Your task to perform on an android device: delete location history Image 0: 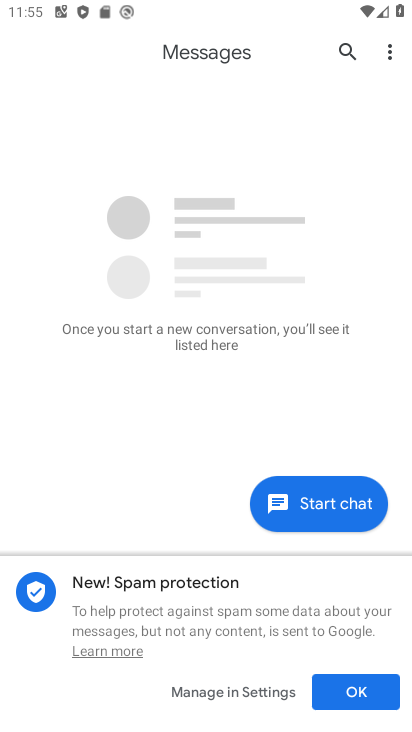
Step 0: press home button
Your task to perform on an android device: delete location history Image 1: 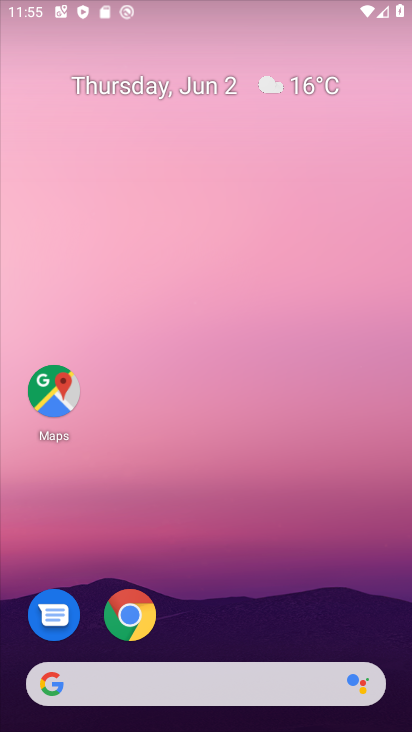
Step 1: drag from (213, 580) to (248, 284)
Your task to perform on an android device: delete location history Image 2: 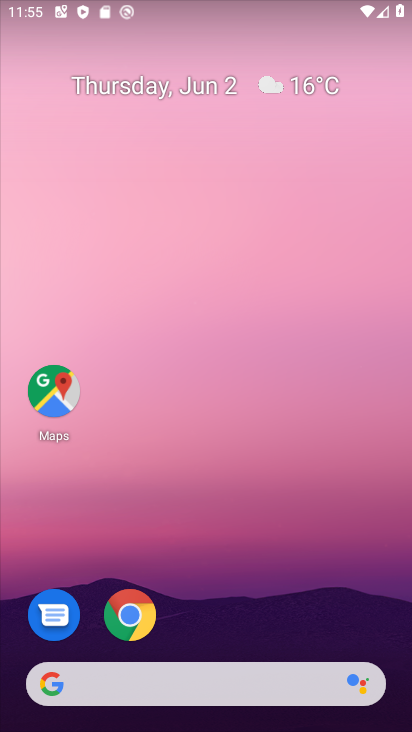
Step 2: click (261, 551)
Your task to perform on an android device: delete location history Image 3: 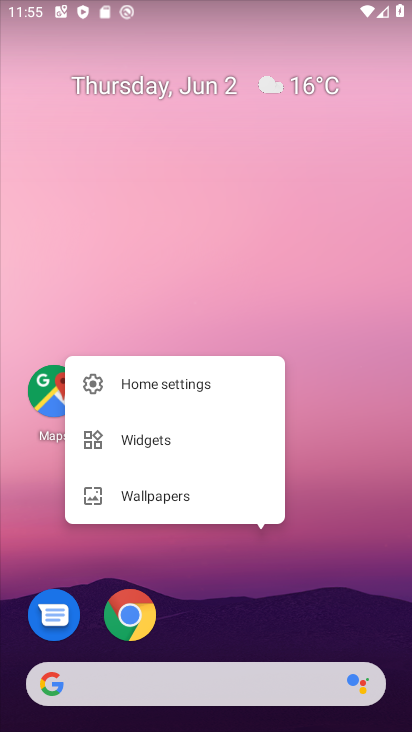
Step 3: drag from (228, 662) to (250, 238)
Your task to perform on an android device: delete location history Image 4: 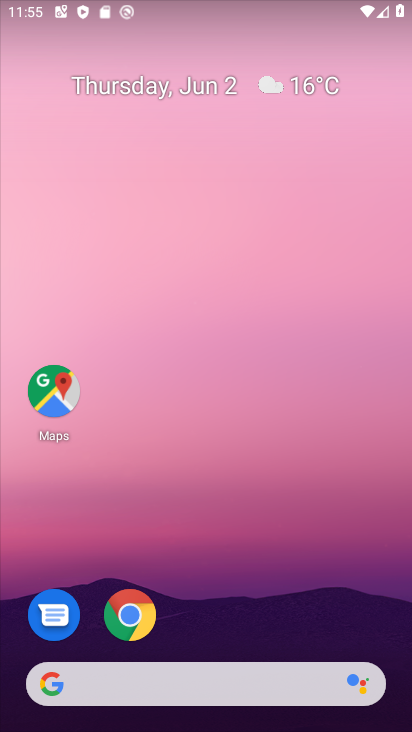
Step 4: drag from (204, 636) to (238, 264)
Your task to perform on an android device: delete location history Image 5: 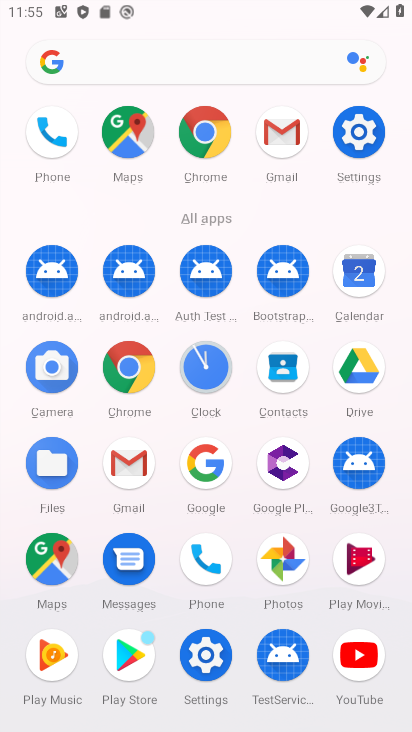
Step 5: click (365, 130)
Your task to perform on an android device: delete location history Image 6: 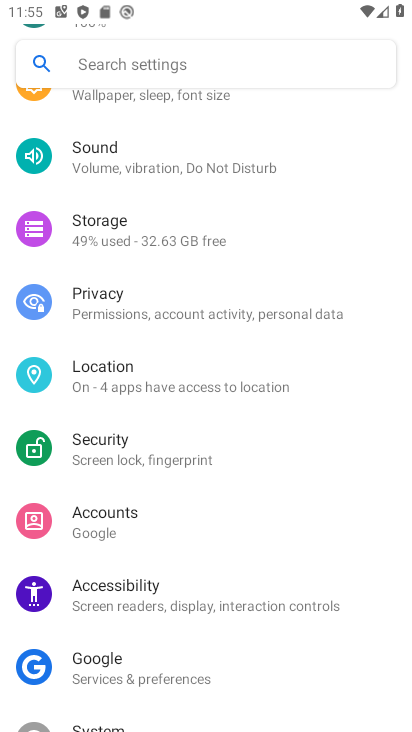
Step 6: press home button
Your task to perform on an android device: delete location history Image 7: 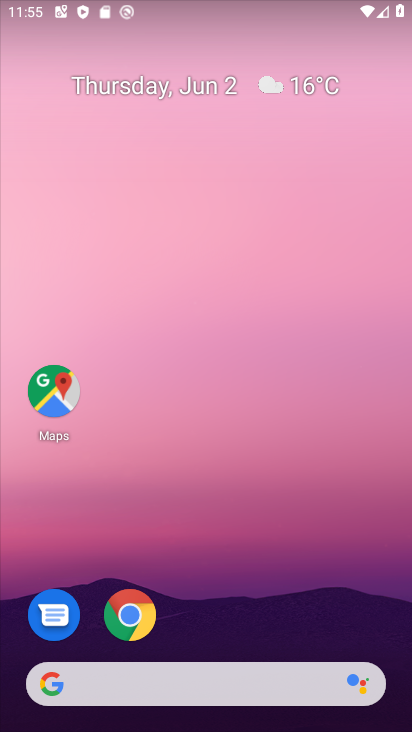
Step 7: drag from (165, 587) to (150, 258)
Your task to perform on an android device: delete location history Image 8: 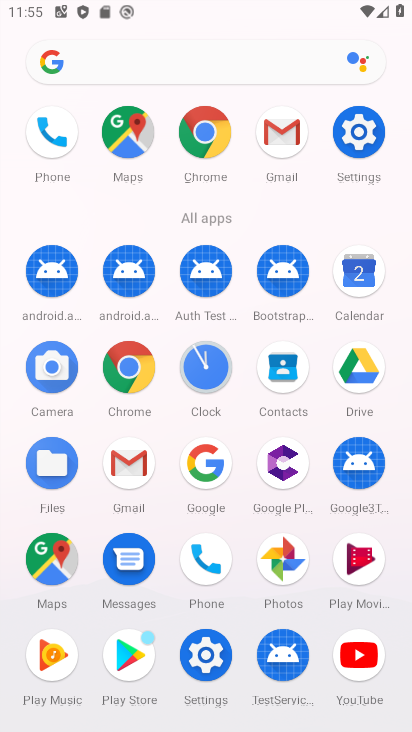
Step 8: click (56, 560)
Your task to perform on an android device: delete location history Image 9: 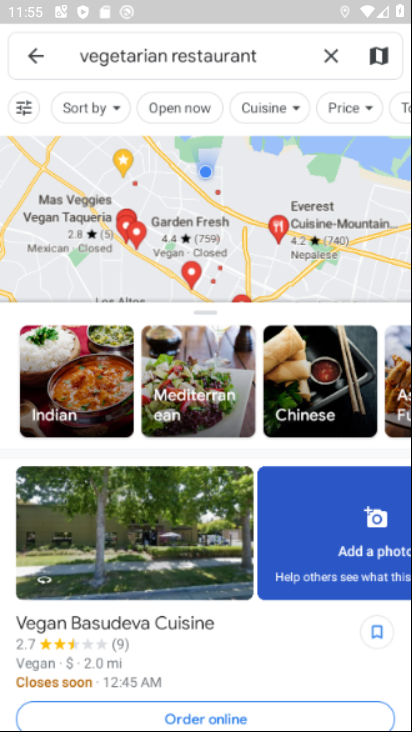
Step 9: click (40, 52)
Your task to perform on an android device: delete location history Image 10: 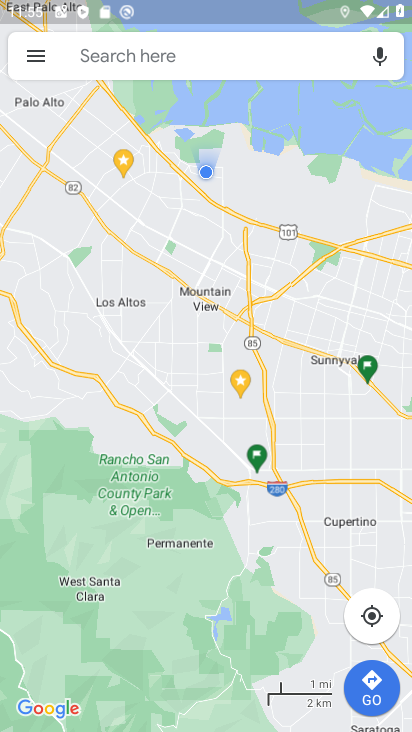
Step 10: click (28, 58)
Your task to perform on an android device: delete location history Image 11: 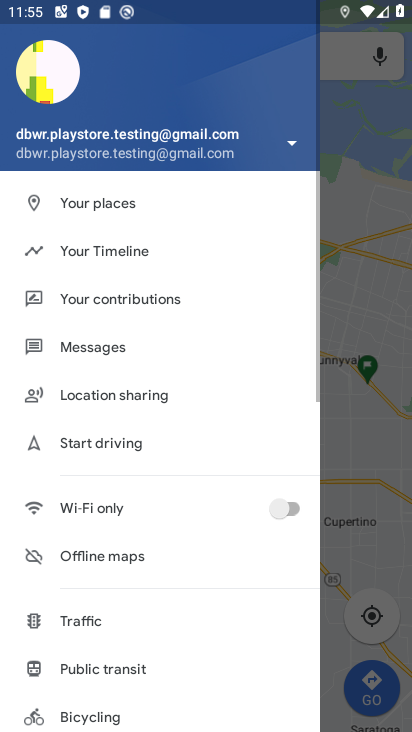
Step 11: click (101, 257)
Your task to perform on an android device: delete location history Image 12: 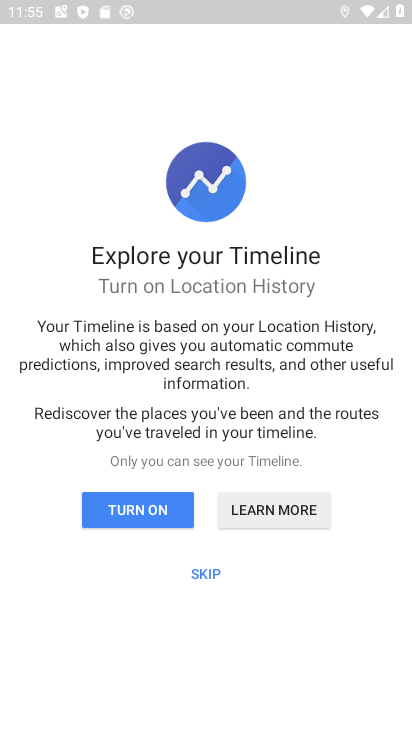
Step 12: click (182, 575)
Your task to perform on an android device: delete location history Image 13: 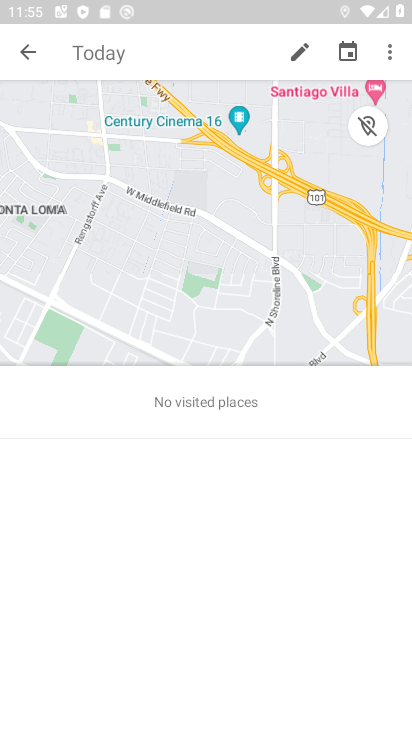
Step 13: click (363, 46)
Your task to perform on an android device: delete location history Image 14: 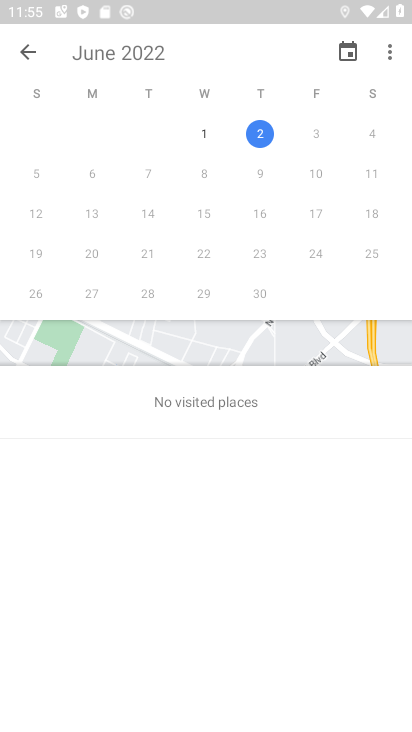
Step 14: click (384, 53)
Your task to perform on an android device: delete location history Image 15: 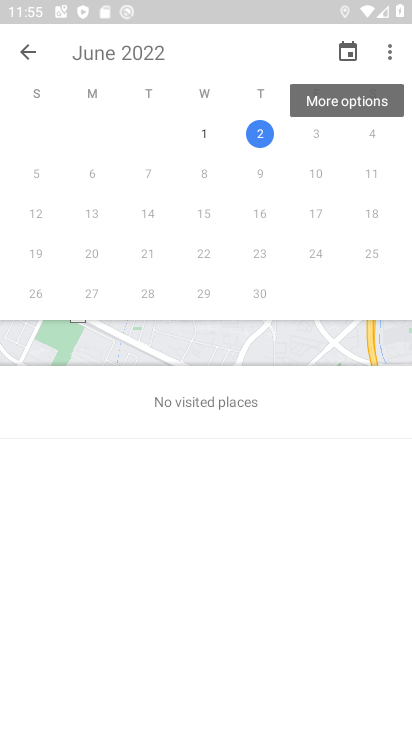
Step 15: click (347, 47)
Your task to perform on an android device: delete location history Image 16: 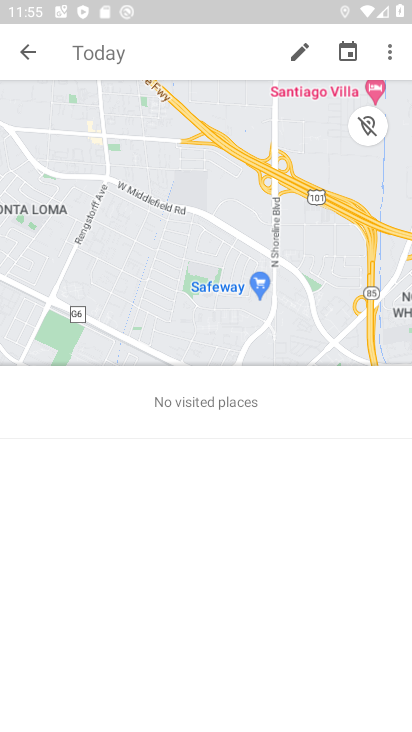
Step 16: click (391, 47)
Your task to perform on an android device: delete location history Image 17: 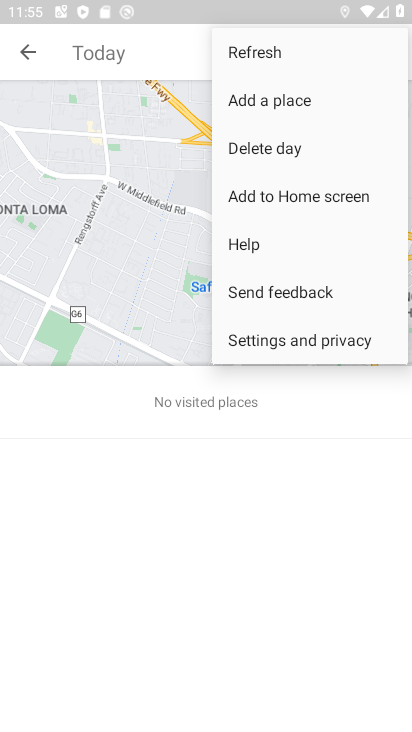
Step 17: click (268, 340)
Your task to perform on an android device: delete location history Image 18: 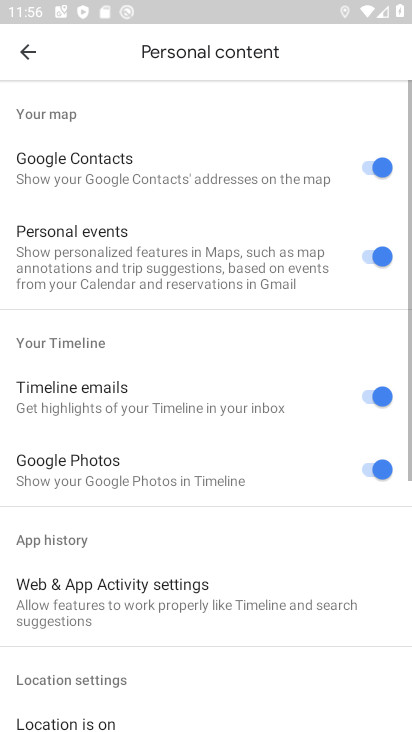
Step 18: drag from (160, 575) to (216, 158)
Your task to perform on an android device: delete location history Image 19: 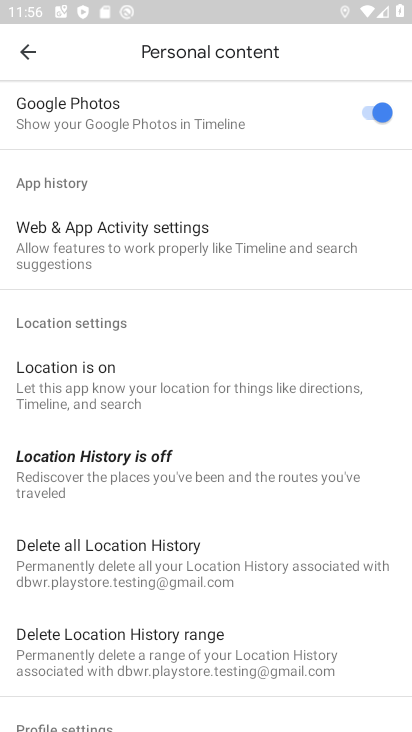
Step 19: click (137, 541)
Your task to perform on an android device: delete location history Image 20: 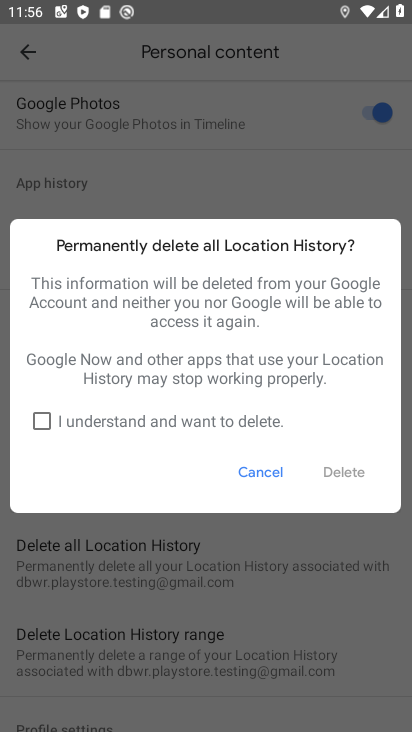
Step 20: click (44, 403)
Your task to perform on an android device: delete location history Image 21: 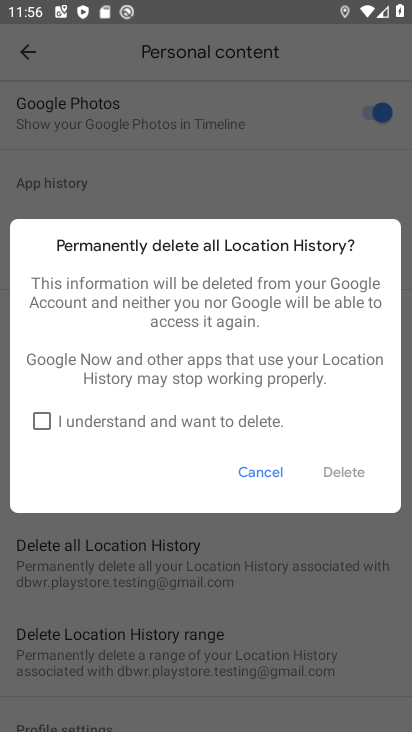
Step 21: click (54, 416)
Your task to perform on an android device: delete location history Image 22: 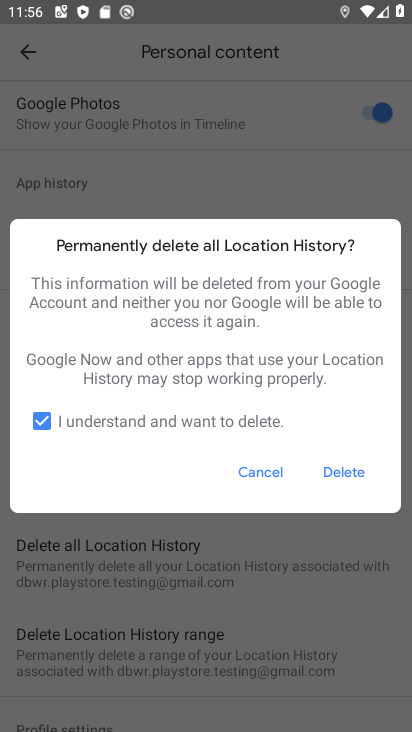
Step 22: click (339, 464)
Your task to perform on an android device: delete location history Image 23: 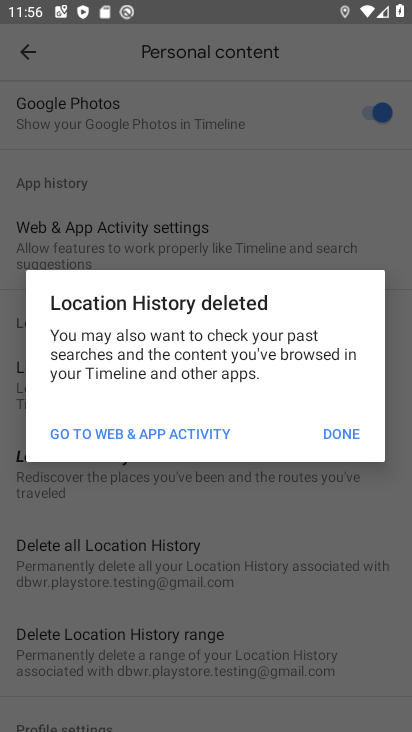
Step 23: click (338, 419)
Your task to perform on an android device: delete location history Image 24: 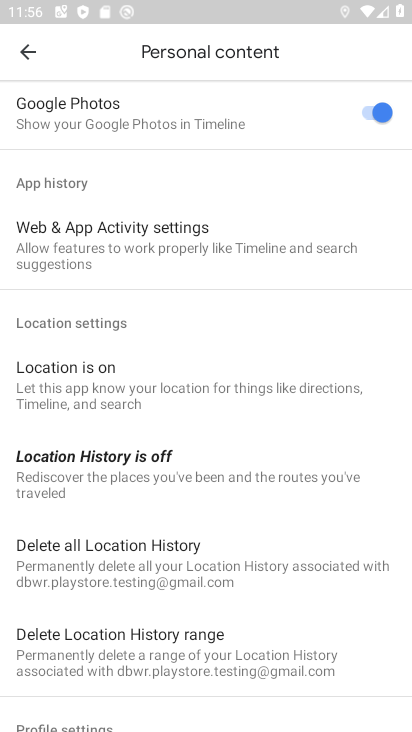
Step 24: task complete